Your task to perform on an android device: open a bookmark in the chrome app Image 0: 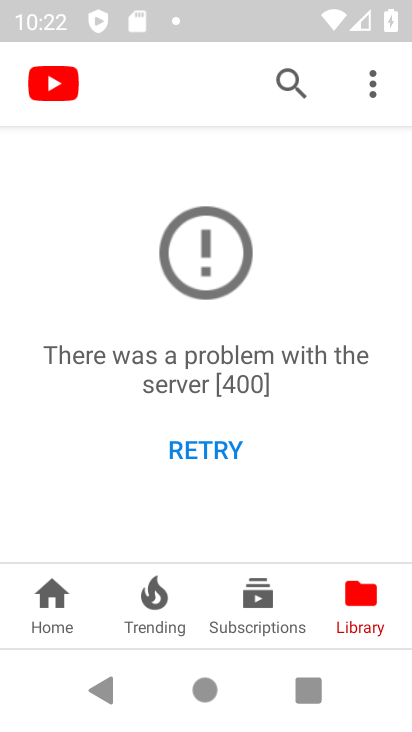
Step 0: press home button
Your task to perform on an android device: open a bookmark in the chrome app Image 1: 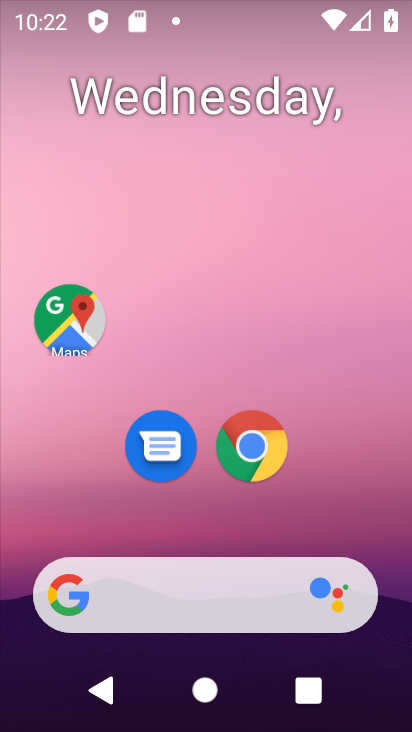
Step 1: click (257, 460)
Your task to perform on an android device: open a bookmark in the chrome app Image 2: 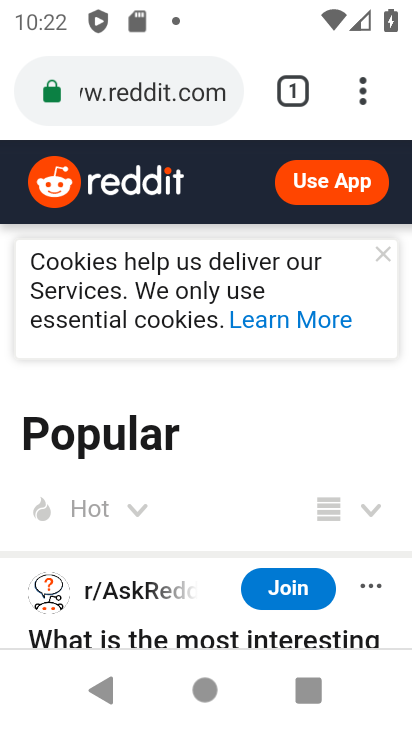
Step 2: task complete